Your task to perform on an android device: change your default location settings in chrome Image 0: 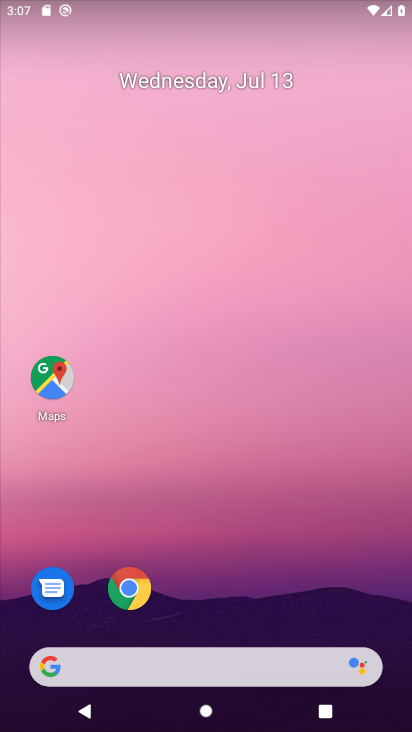
Step 0: drag from (237, 559) to (175, 128)
Your task to perform on an android device: change your default location settings in chrome Image 1: 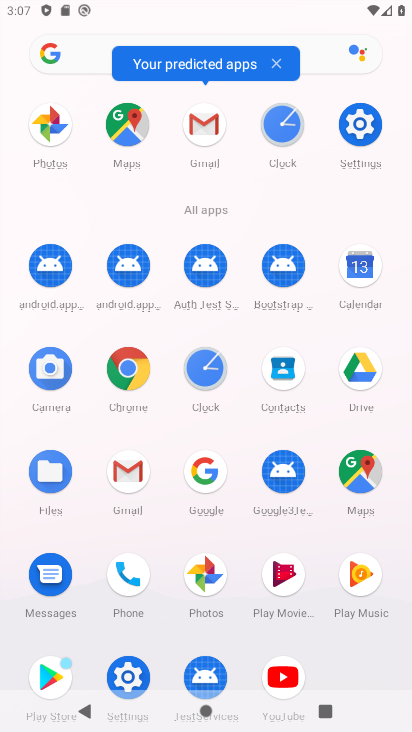
Step 1: click (129, 359)
Your task to perform on an android device: change your default location settings in chrome Image 2: 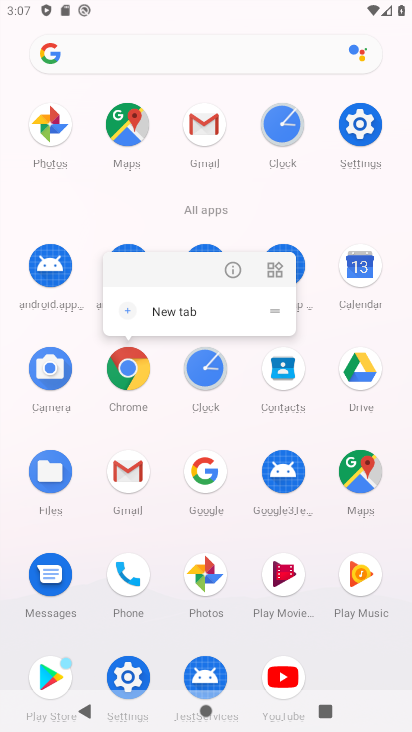
Step 2: click (129, 358)
Your task to perform on an android device: change your default location settings in chrome Image 3: 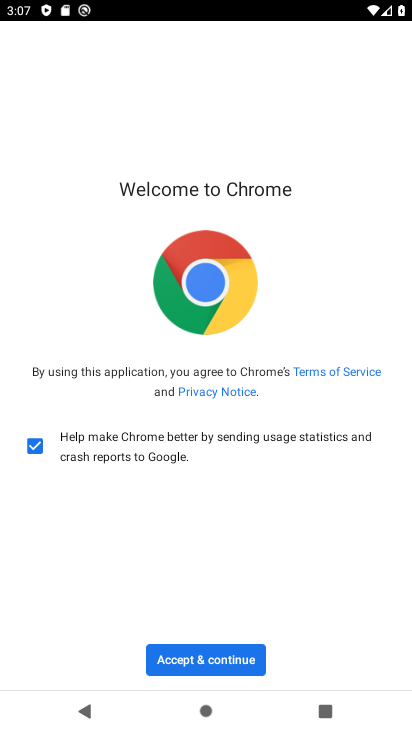
Step 3: click (179, 664)
Your task to perform on an android device: change your default location settings in chrome Image 4: 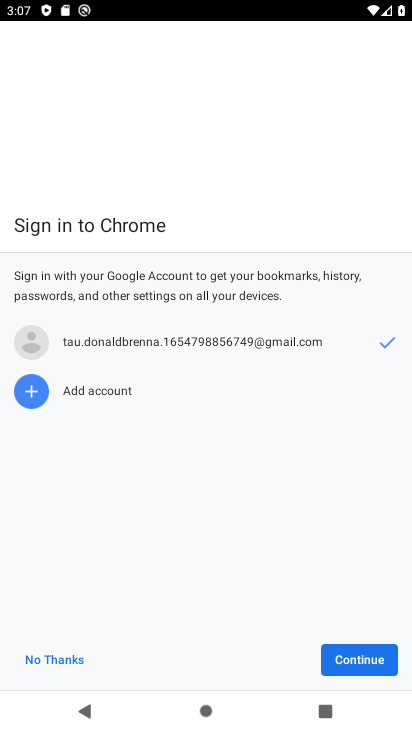
Step 4: click (51, 650)
Your task to perform on an android device: change your default location settings in chrome Image 5: 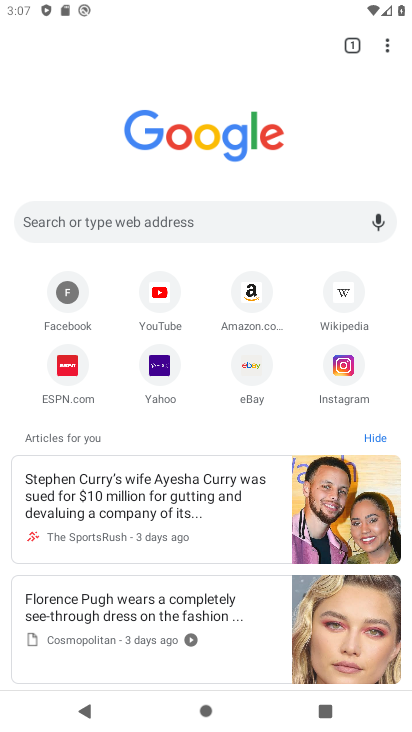
Step 5: drag from (378, 49) to (225, 395)
Your task to perform on an android device: change your default location settings in chrome Image 6: 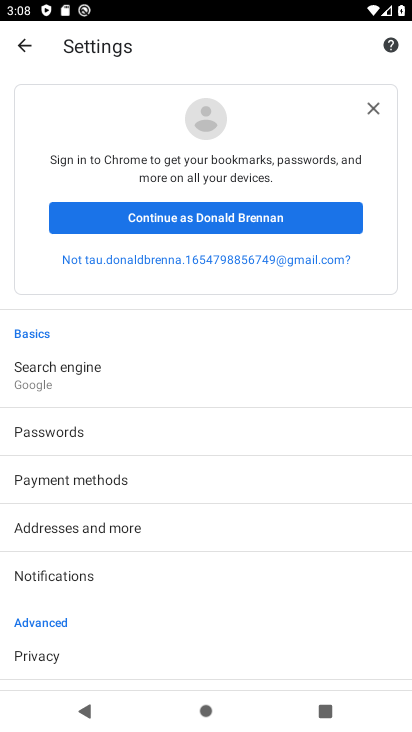
Step 6: drag from (144, 642) to (132, 193)
Your task to perform on an android device: change your default location settings in chrome Image 7: 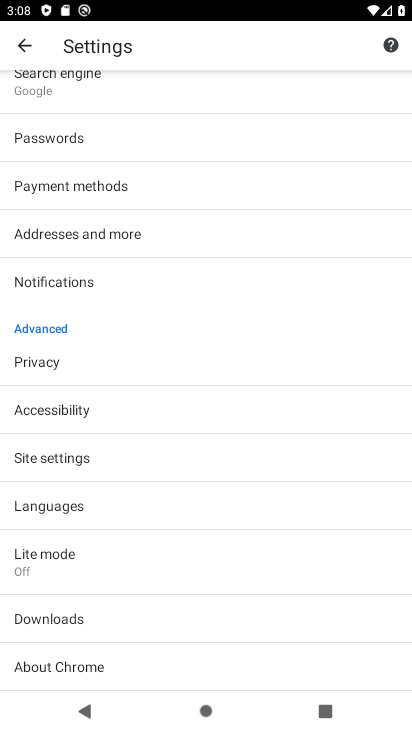
Step 7: drag from (122, 610) to (111, 235)
Your task to perform on an android device: change your default location settings in chrome Image 8: 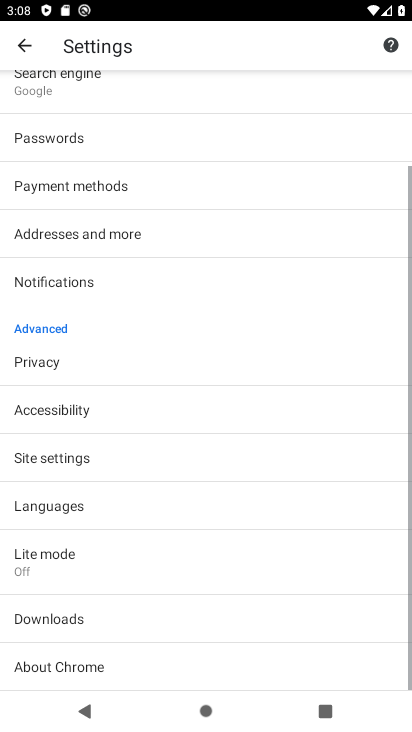
Step 8: click (68, 465)
Your task to perform on an android device: change your default location settings in chrome Image 9: 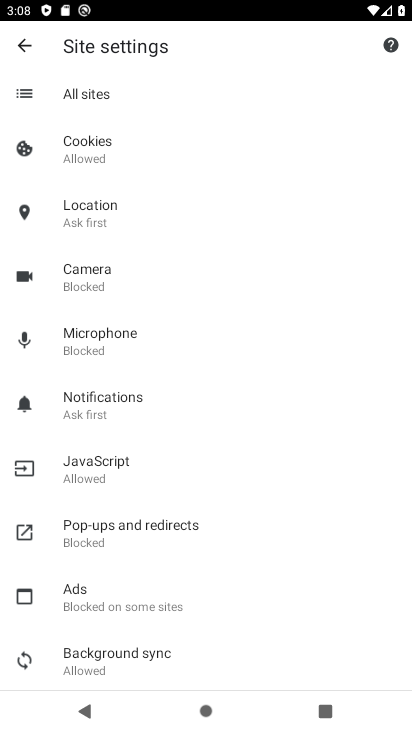
Step 9: click (103, 211)
Your task to perform on an android device: change your default location settings in chrome Image 10: 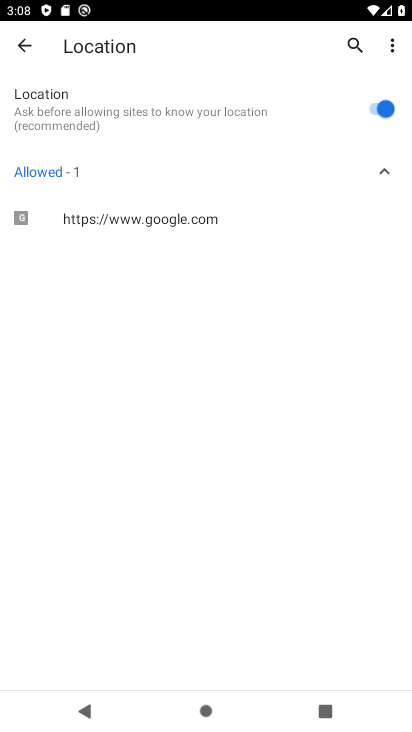
Step 10: click (385, 117)
Your task to perform on an android device: change your default location settings in chrome Image 11: 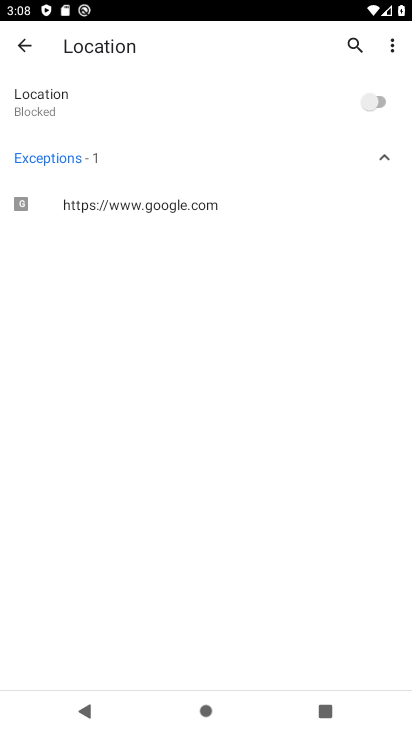
Step 11: task complete